Your task to perform on an android device: When is my next appointment? Image 0: 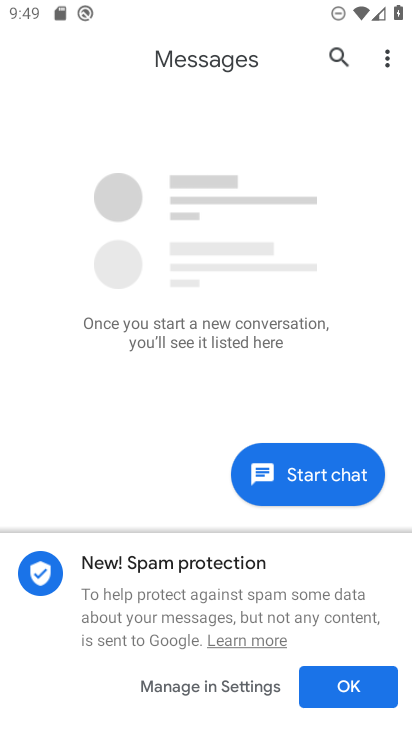
Step 0: press home button
Your task to perform on an android device: When is my next appointment? Image 1: 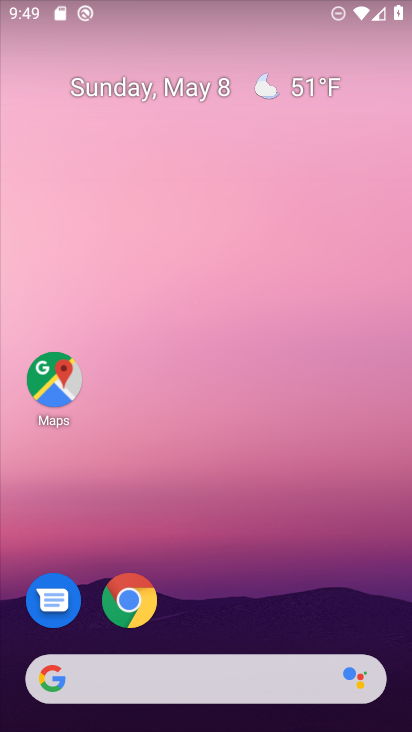
Step 1: drag from (287, 615) to (282, 2)
Your task to perform on an android device: When is my next appointment? Image 2: 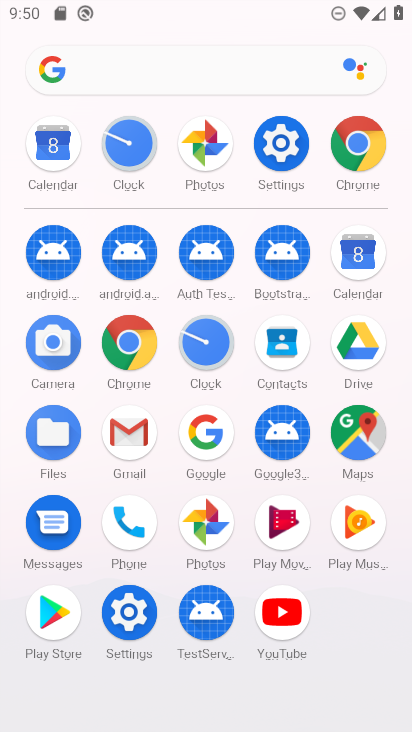
Step 2: click (50, 146)
Your task to perform on an android device: When is my next appointment? Image 3: 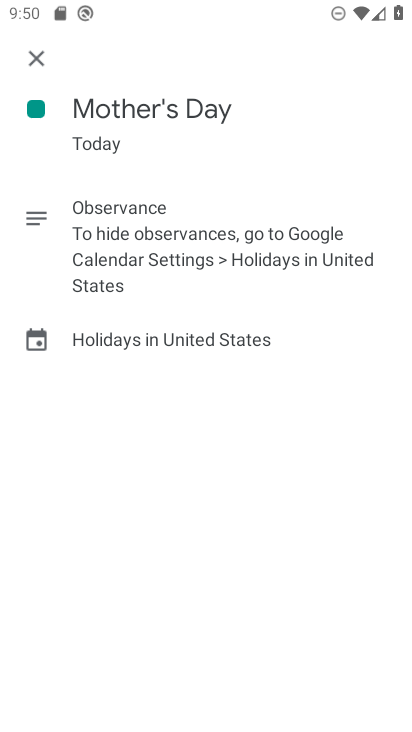
Step 3: click (34, 62)
Your task to perform on an android device: When is my next appointment? Image 4: 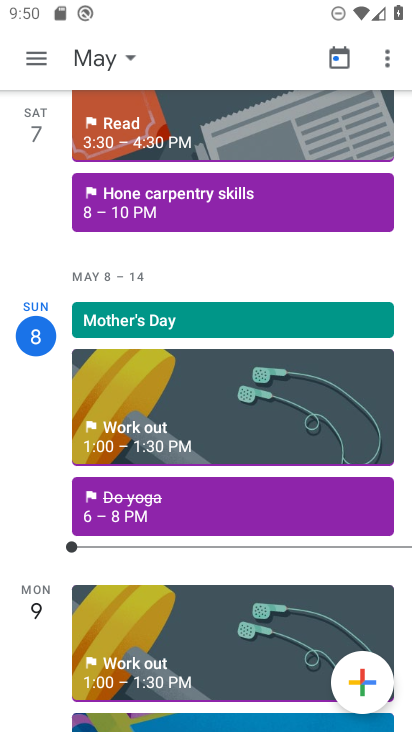
Step 4: drag from (150, 522) to (166, 124)
Your task to perform on an android device: When is my next appointment? Image 5: 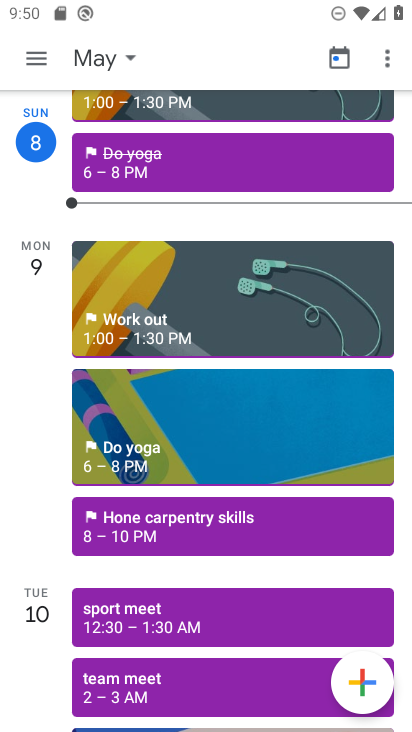
Step 5: drag from (189, 591) to (194, 332)
Your task to perform on an android device: When is my next appointment? Image 6: 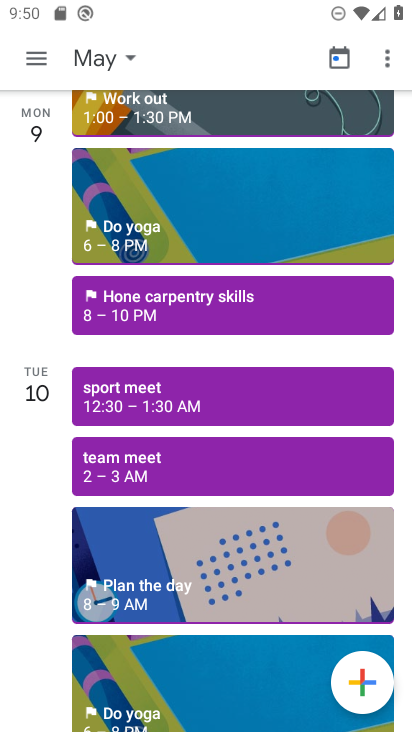
Step 6: drag from (192, 344) to (177, 535)
Your task to perform on an android device: When is my next appointment? Image 7: 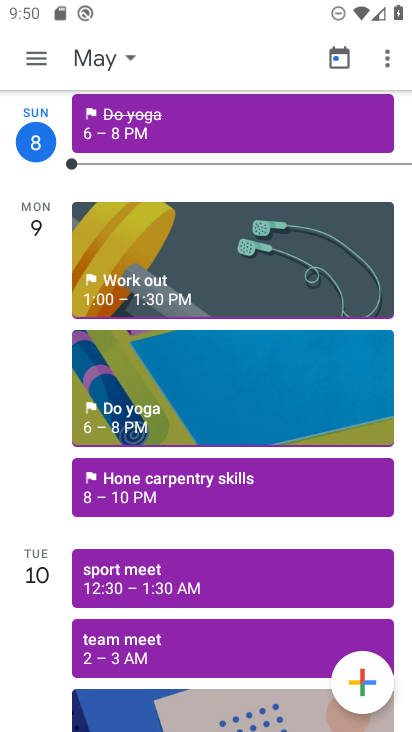
Step 7: drag from (189, 226) to (189, 507)
Your task to perform on an android device: When is my next appointment? Image 8: 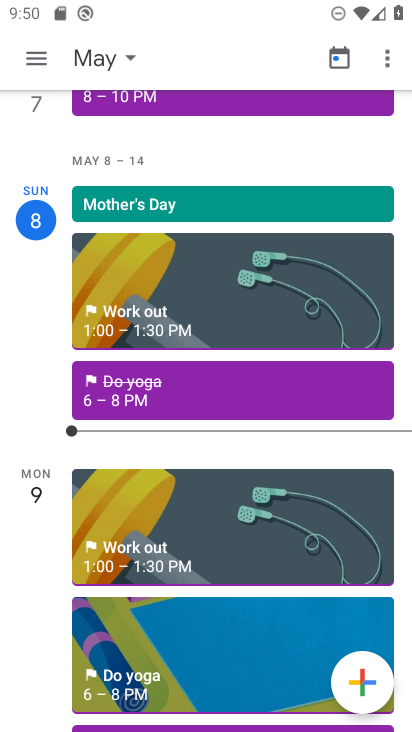
Step 8: drag from (189, 441) to (183, 145)
Your task to perform on an android device: When is my next appointment? Image 9: 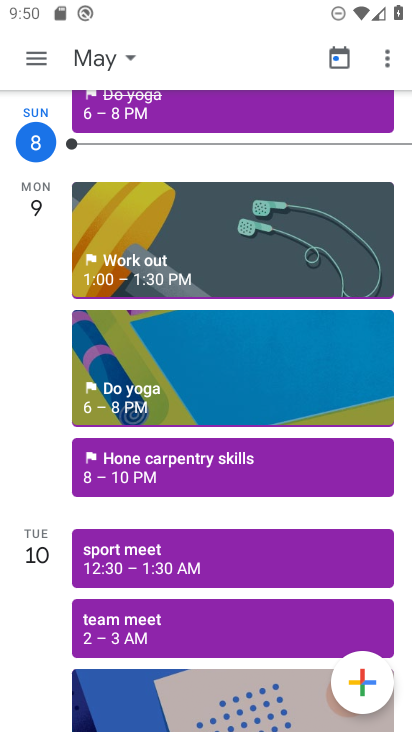
Step 9: click (132, 460)
Your task to perform on an android device: When is my next appointment? Image 10: 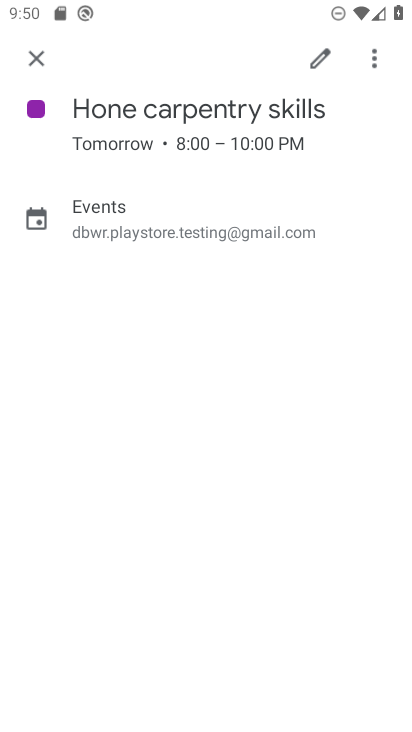
Step 10: task complete